Your task to perform on an android device: turn notification dots on Image 0: 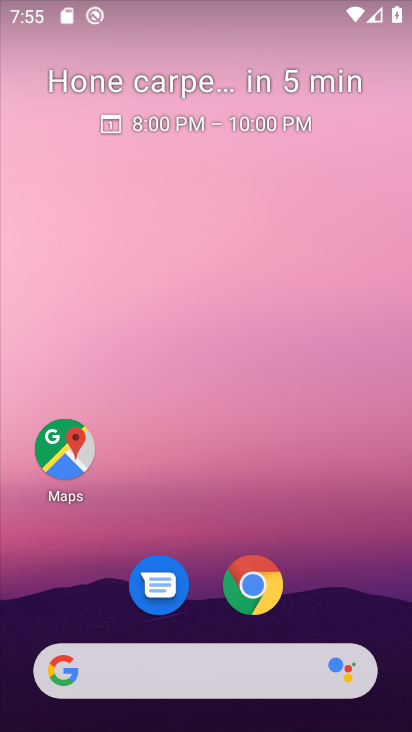
Step 0: drag from (327, 556) to (342, 41)
Your task to perform on an android device: turn notification dots on Image 1: 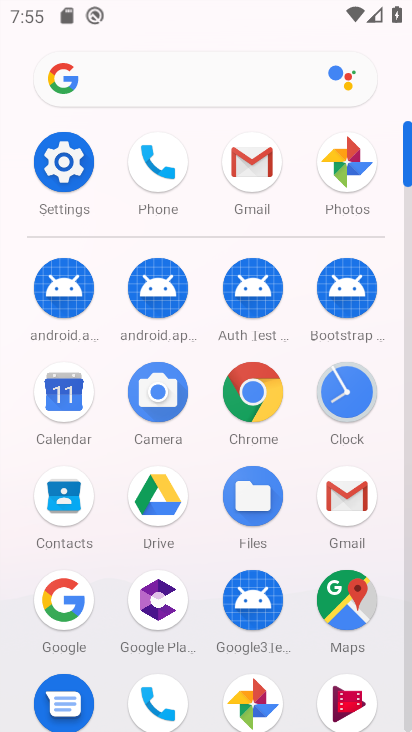
Step 1: click (67, 167)
Your task to perform on an android device: turn notification dots on Image 2: 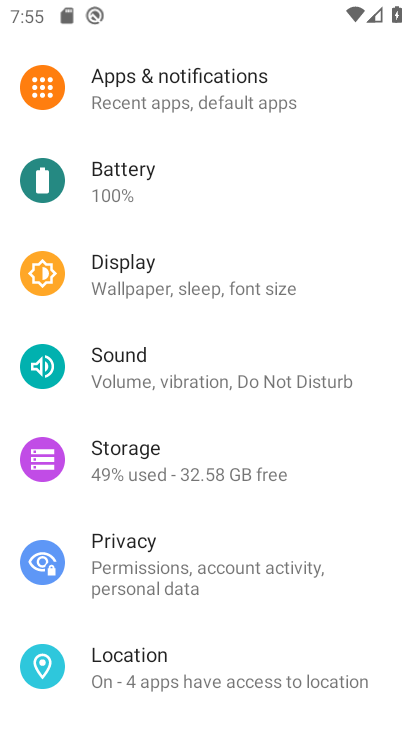
Step 2: click (261, 98)
Your task to perform on an android device: turn notification dots on Image 3: 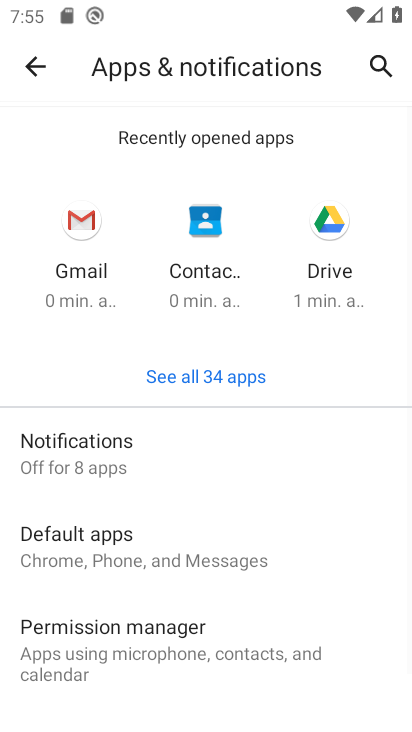
Step 3: click (167, 459)
Your task to perform on an android device: turn notification dots on Image 4: 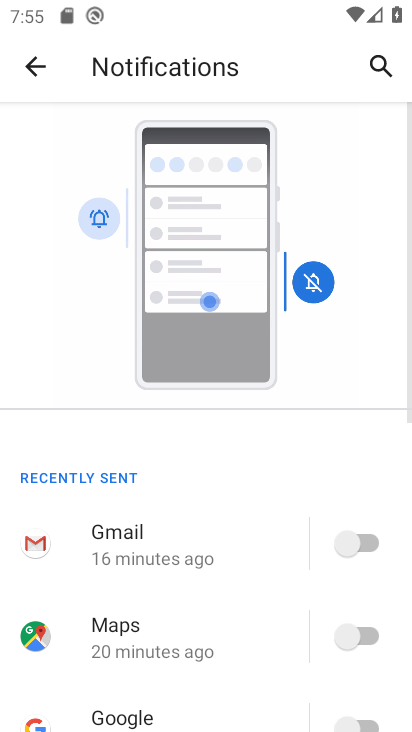
Step 4: drag from (233, 626) to (258, 115)
Your task to perform on an android device: turn notification dots on Image 5: 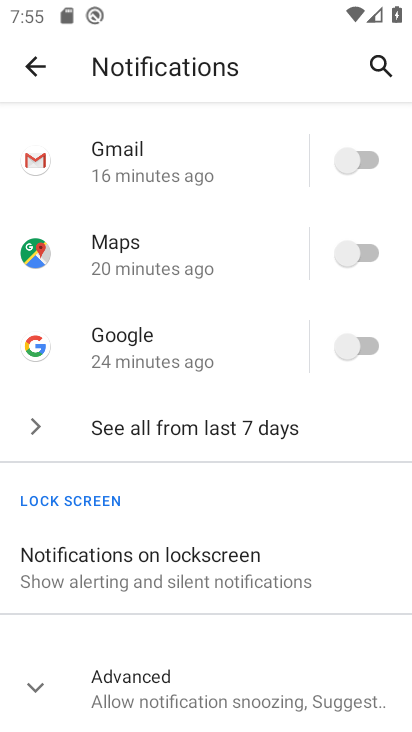
Step 5: click (30, 682)
Your task to perform on an android device: turn notification dots on Image 6: 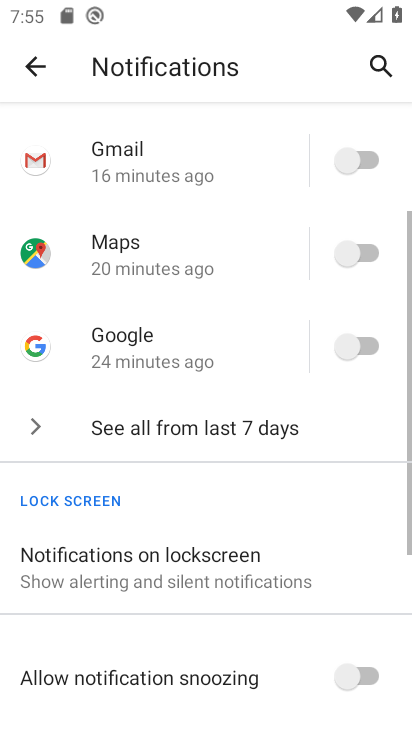
Step 6: task complete